Your task to perform on an android device: turn pop-ups off in chrome Image 0: 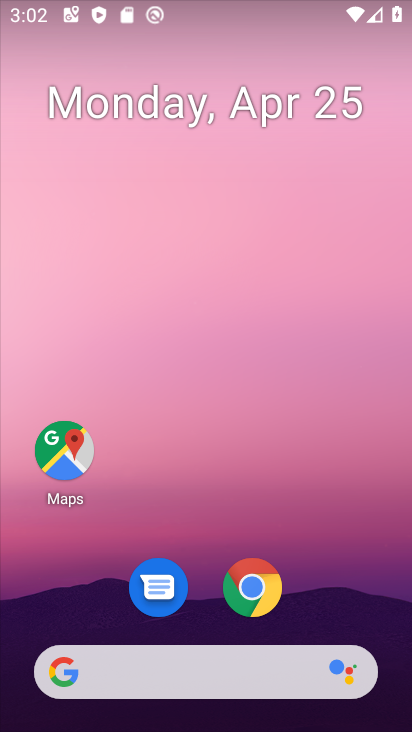
Step 0: click (255, 586)
Your task to perform on an android device: turn pop-ups off in chrome Image 1: 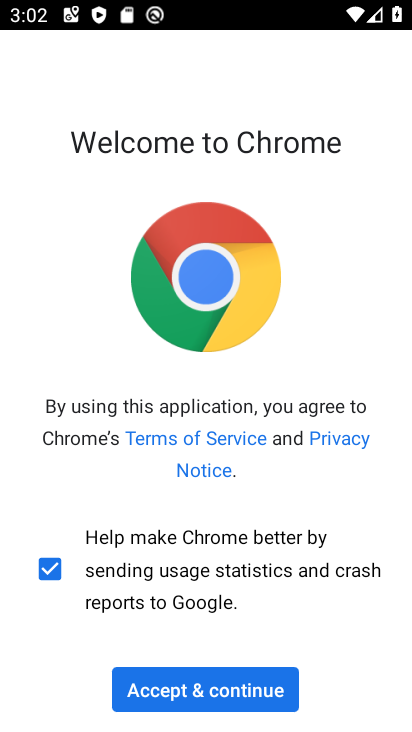
Step 1: click (223, 691)
Your task to perform on an android device: turn pop-ups off in chrome Image 2: 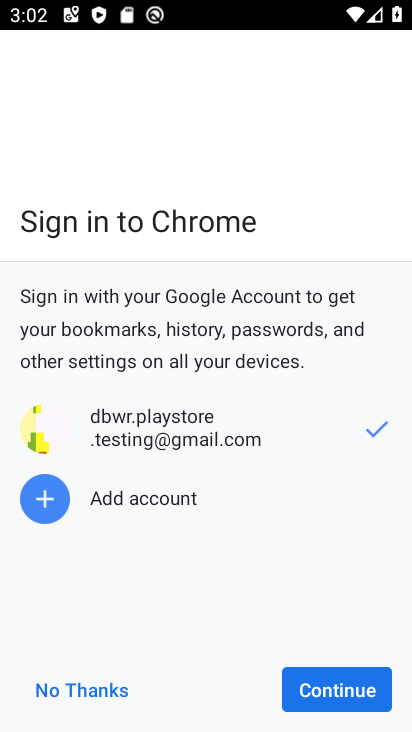
Step 2: click (339, 695)
Your task to perform on an android device: turn pop-ups off in chrome Image 3: 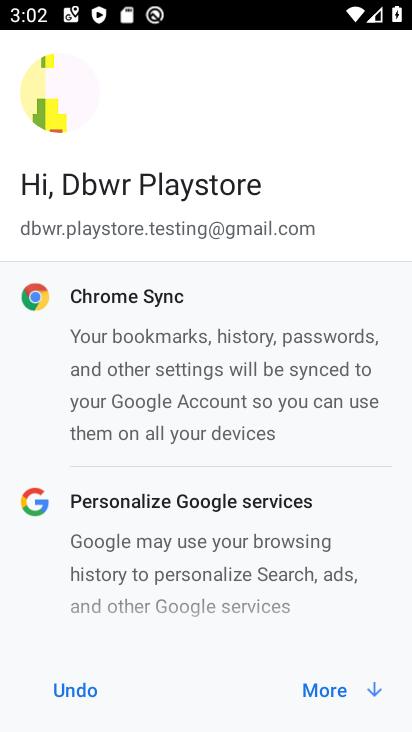
Step 3: click (333, 682)
Your task to perform on an android device: turn pop-ups off in chrome Image 4: 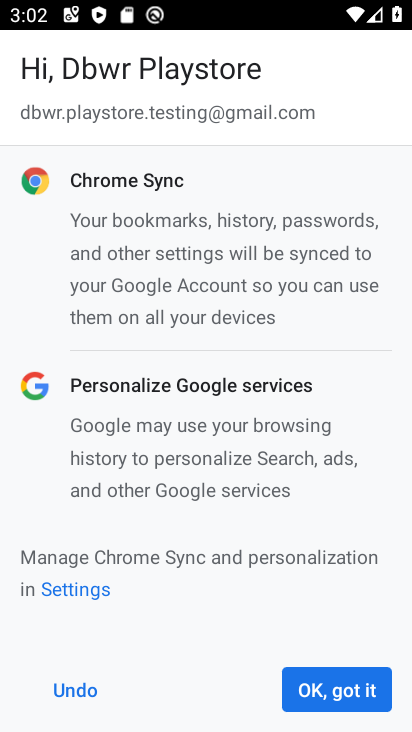
Step 4: click (333, 682)
Your task to perform on an android device: turn pop-ups off in chrome Image 5: 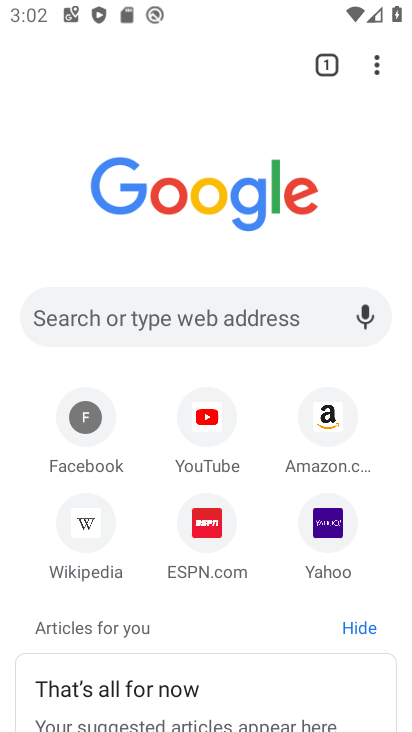
Step 5: click (371, 59)
Your task to perform on an android device: turn pop-ups off in chrome Image 6: 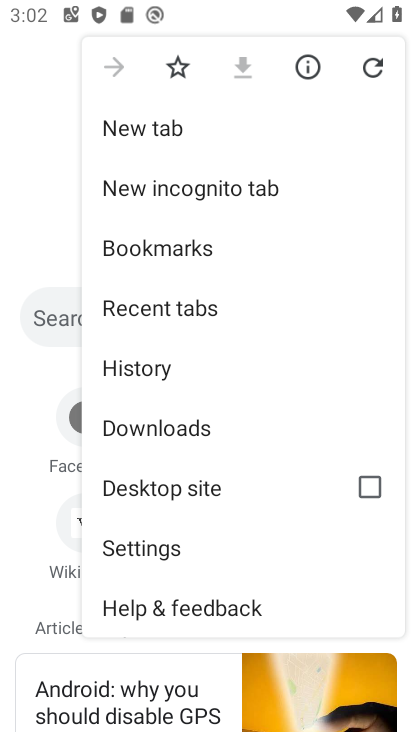
Step 6: click (180, 549)
Your task to perform on an android device: turn pop-ups off in chrome Image 7: 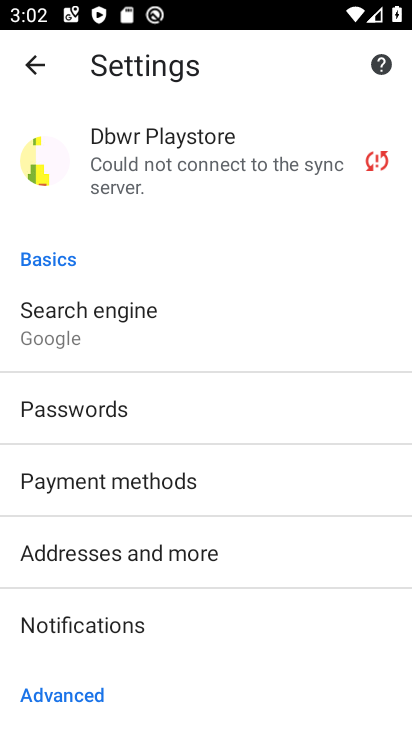
Step 7: drag from (270, 525) to (178, 210)
Your task to perform on an android device: turn pop-ups off in chrome Image 8: 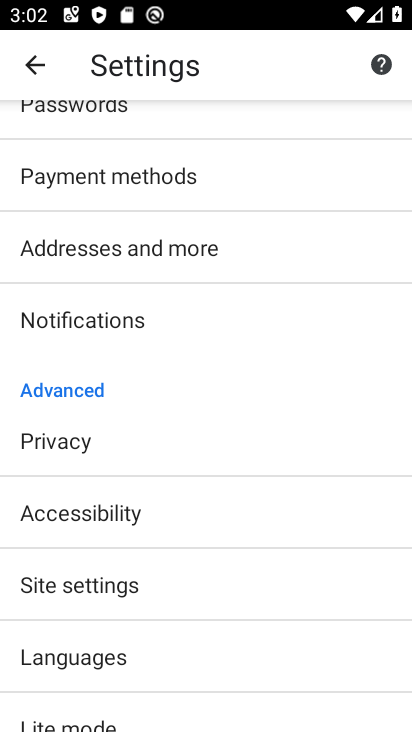
Step 8: click (89, 591)
Your task to perform on an android device: turn pop-ups off in chrome Image 9: 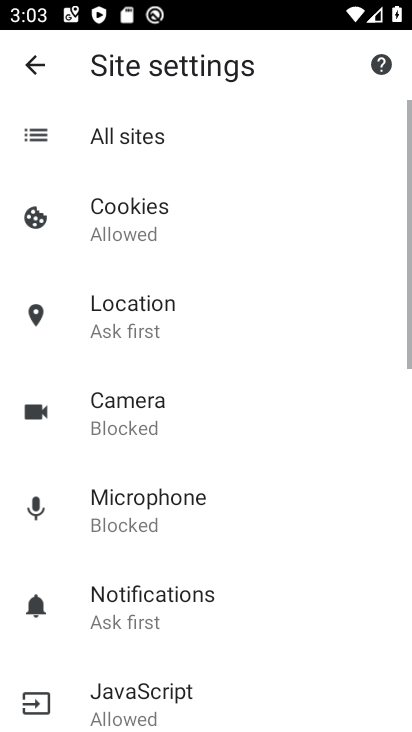
Step 9: drag from (199, 601) to (184, 251)
Your task to perform on an android device: turn pop-ups off in chrome Image 10: 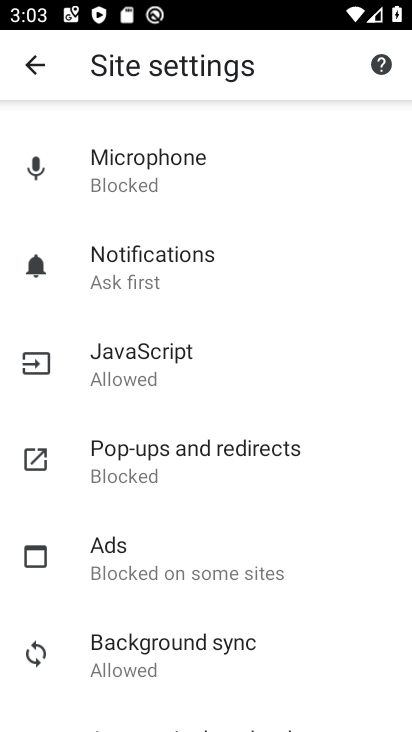
Step 10: click (178, 459)
Your task to perform on an android device: turn pop-ups off in chrome Image 11: 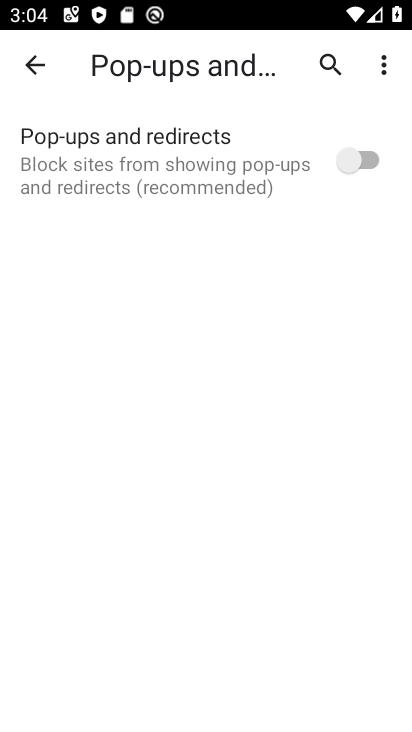
Step 11: task complete